Your task to perform on an android device: star an email in the gmail app Image 0: 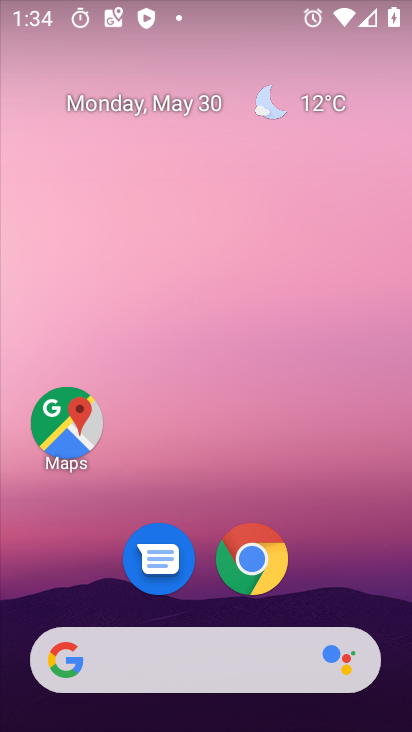
Step 0: drag from (203, 485) to (199, 8)
Your task to perform on an android device: star an email in the gmail app Image 1: 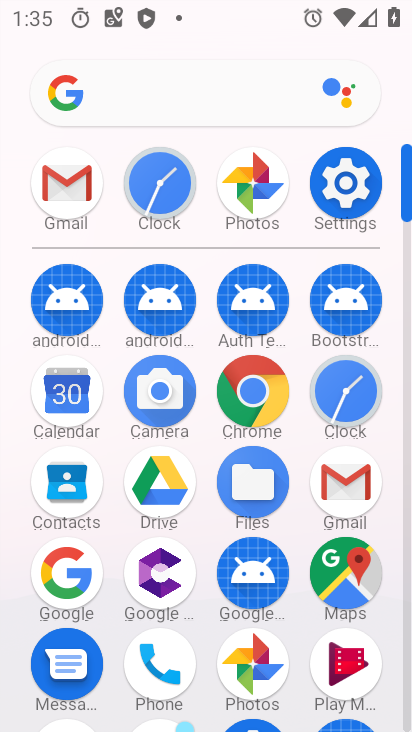
Step 1: click (57, 180)
Your task to perform on an android device: star an email in the gmail app Image 2: 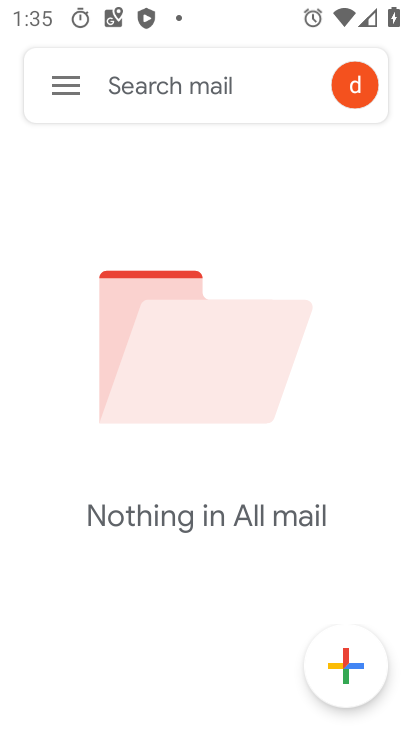
Step 2: click (59, 78)
Your task to perform on an android device: star an email in the gmail app Image 3: 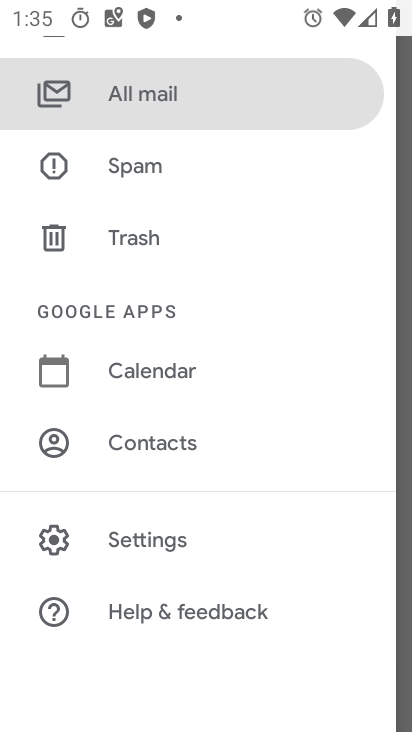
Step 3: click (165, 93)
Your task to perform on an android device: star an email in the gmail app Image 4: 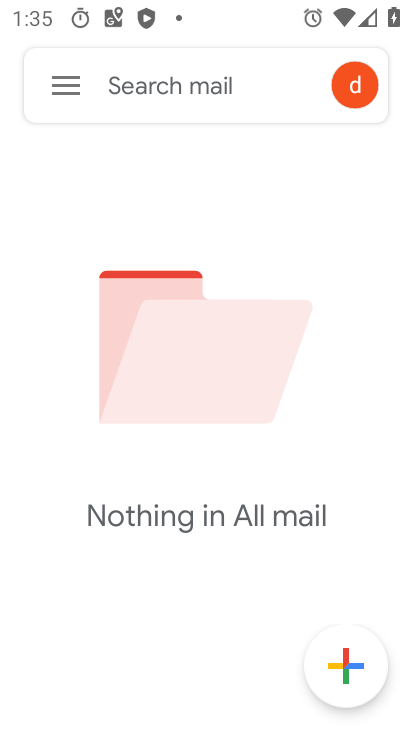
Step 4: task complete